Your task to perform on an android device: Go to Reddit.com Image 0: 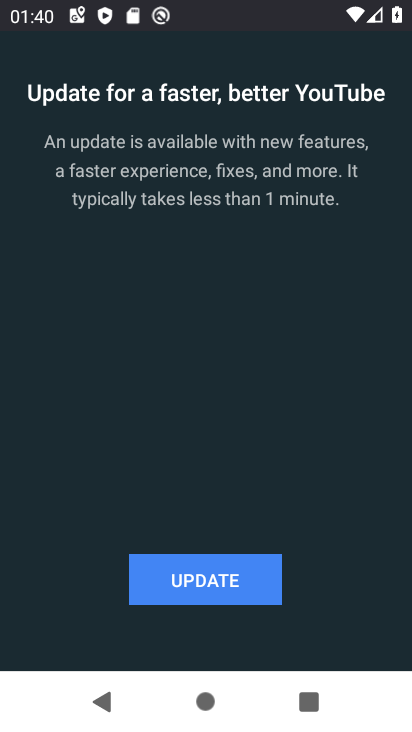
Step 0: press home button
Your task to perform on an android device: Go to Reddit.com Image 1: 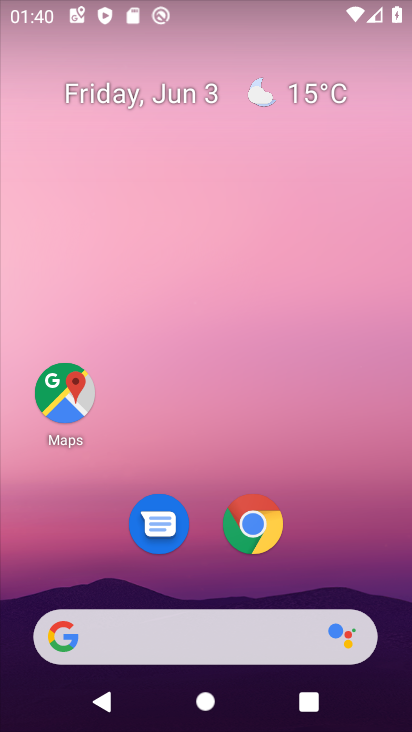
Step 1: click (245, 646)
Your task to perform on an android device: Go to Reddit.com Image 2: 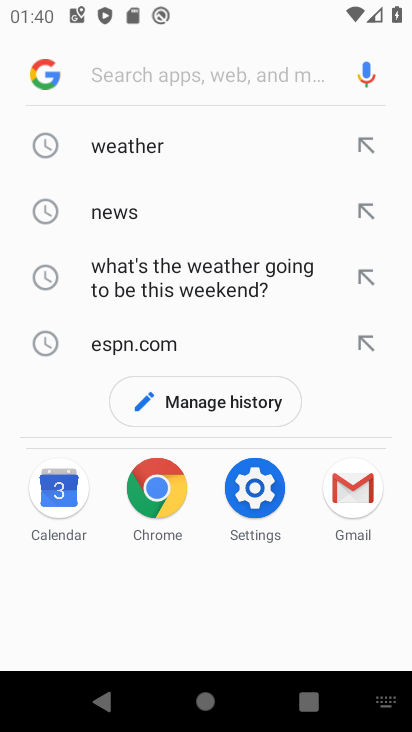
Step 2: type "reddit.com"
Your task to perform on an android device: Go to Reddit.com Image 3: 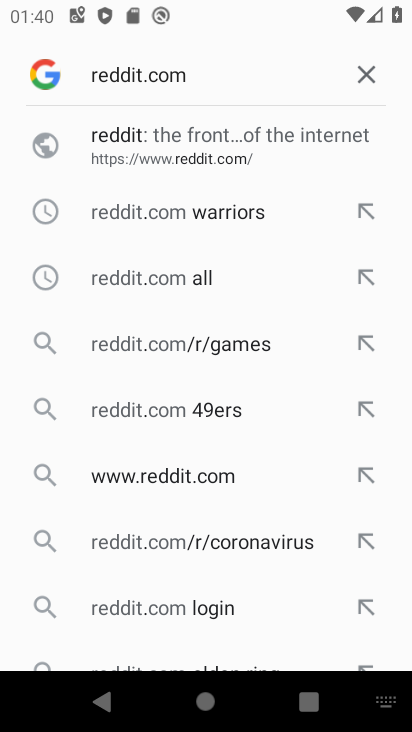
Step 3: click (153, 148)
Your task to perform on an android device: Go to Reddit.com Image 4: 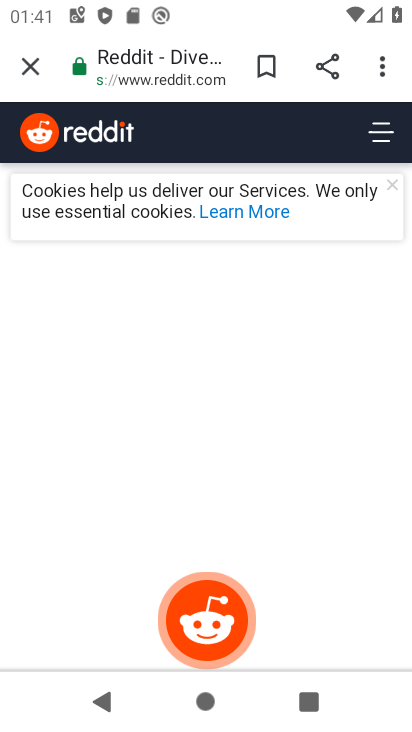
Step 4: task complete